Your task to perform on an android device: turn off data saver in the chrome app Image 0: 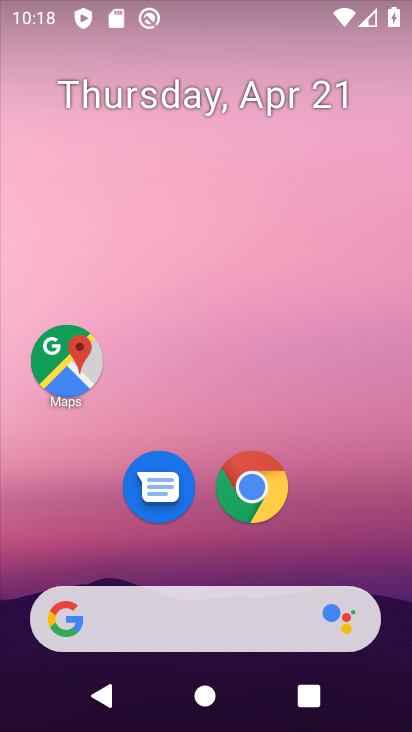
Step 0: drag from (361, 556) to (361, 184)
Your task to perform on an android device: turn off data saver in the chrome app Image 1: 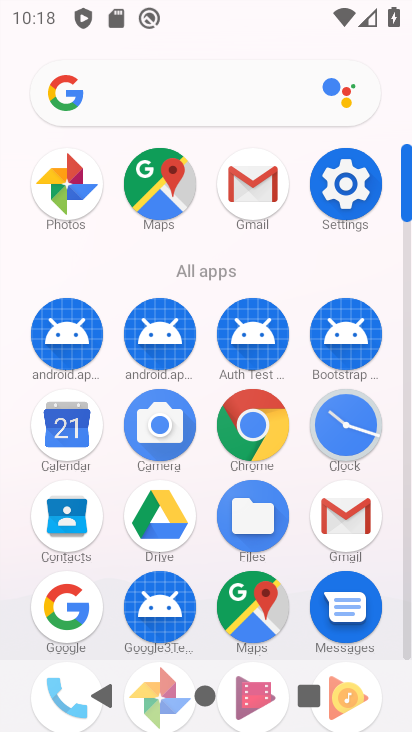
Step 1: click (259, 409)
Your task to perform on an android device: turn off data saver in the chrome app Image 2: 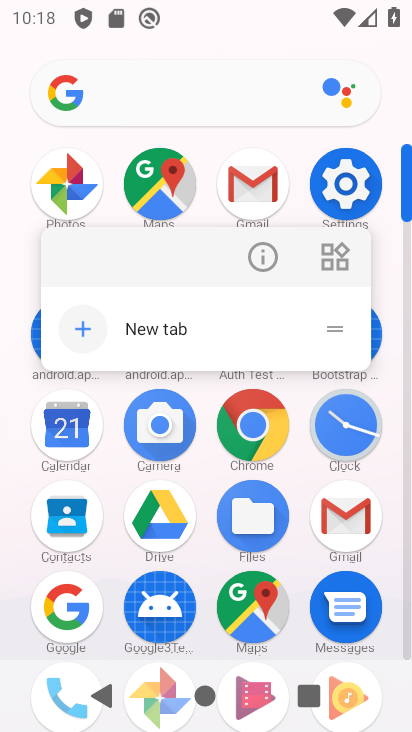
Step 2: click (266, 446)
Your task to perform on an android device: turn off data saver in the chrome app Image 3: 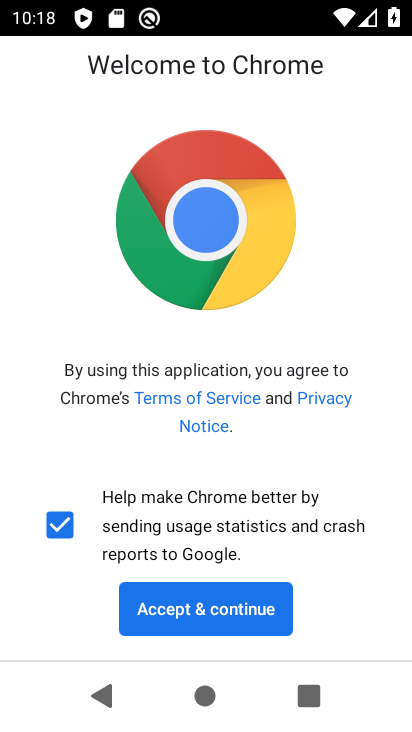
Step 3: click (236, 610)
Your task to perform on an android device: turn off data saver in the chrome app Image 4: 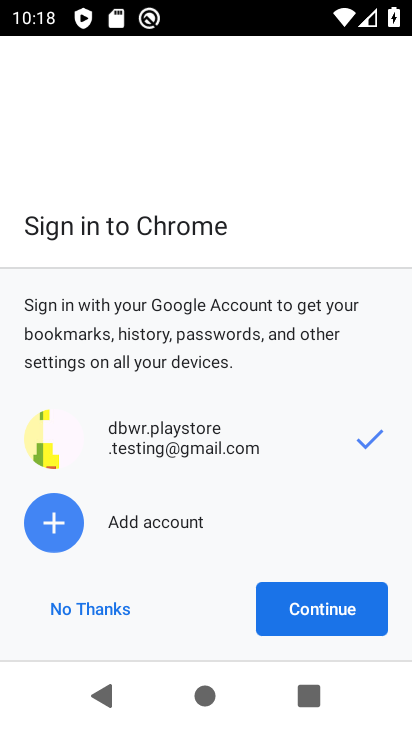
Step 4: click (299, 606)
Your task to perform on an android device: turn off data saver in the chrome app Image 5: 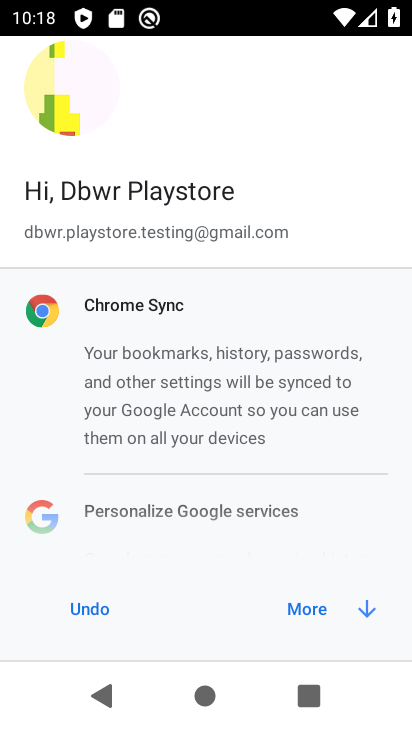
Step 5: click (299, 604)
Your task to perform on an android device: turn off data saver in the chrome app Image 6: 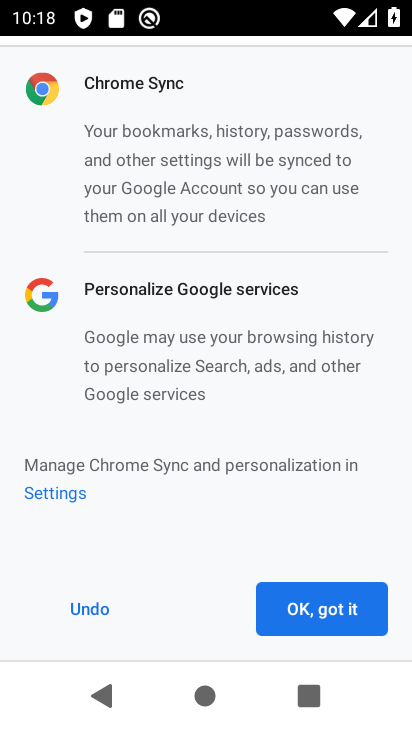
Step 6: click (300, 603)
Your task to perform on an android device: turn off data saver in the chrome app Image 7: 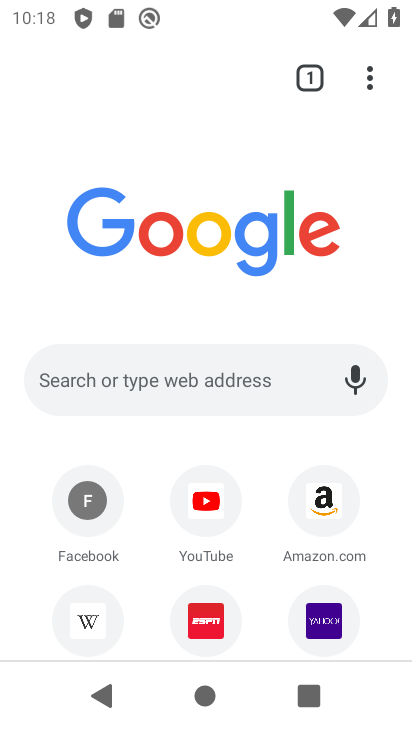
Step 7: drag from (367, 85) to (160, 558)
Your task to perform on an android device: turn off data saver in the chrome app Image 8: 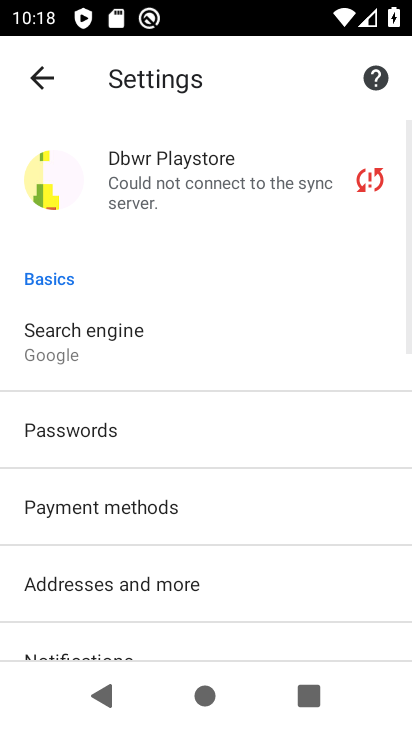
Step 8: drag from (271, 639) to (310, 363)
Your task to perform on an android device: turn off data saver in the chrome app Image 9: 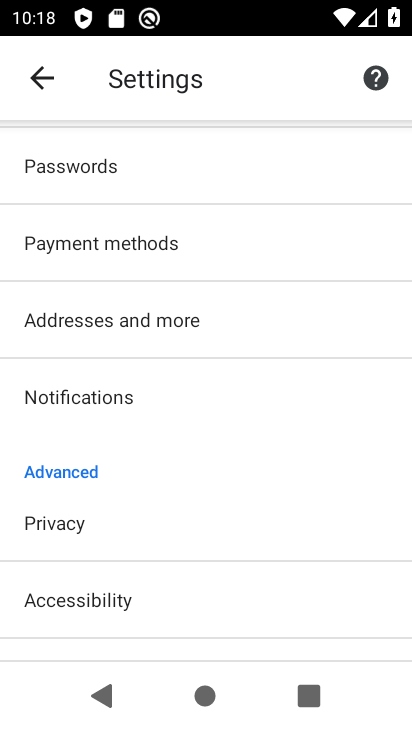
Step 9: drag from (291, 620) to (323, 349)
Your task to perform on an android device: turn off data saver in the chrome app Image 10: 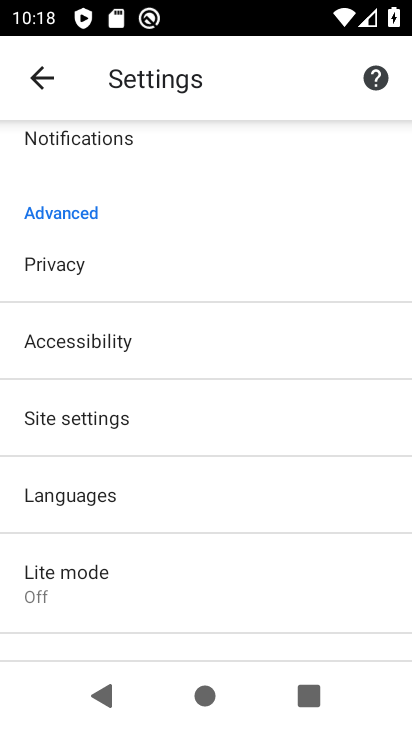
Step 10: drag from (271, 571) to (299, 391)
Your task to perform on an android device: turn off data saver in the chrome app Image 11: 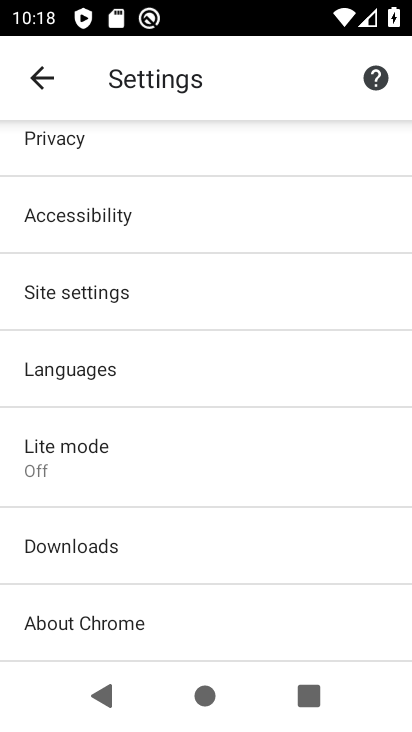
Step 11: drag from (247, 591) to (273, 416)
Your task to perform on an android device: turn off data saver in the chrome app Image 12: 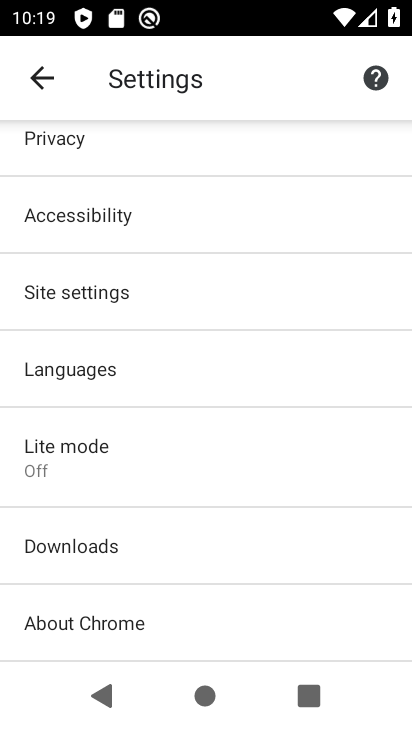
Step 12: click (88, 450)
Your task to perform on an android device: turn off data saver in the chrome app Image 13: 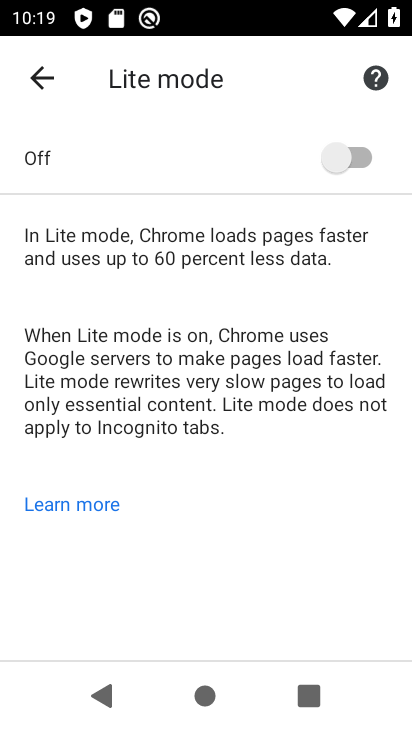
Step 13: task complete